Your task to perform on an android device: Open the stopwatch Image 0: 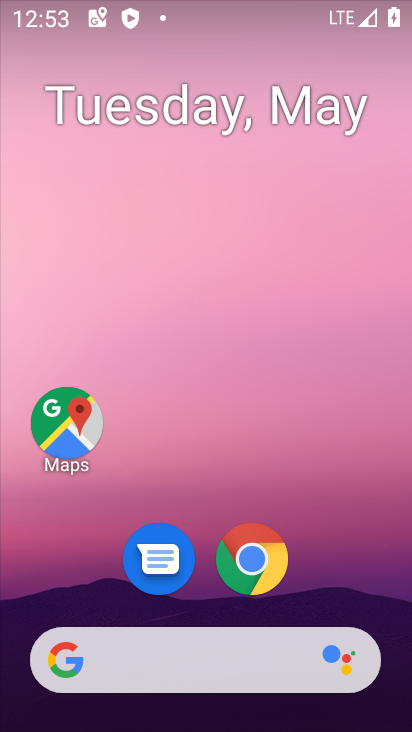
Step 0: drag from (322, 509) to (245, 107)
Your task to perform on an android device: Open the stopwatch Image 1: 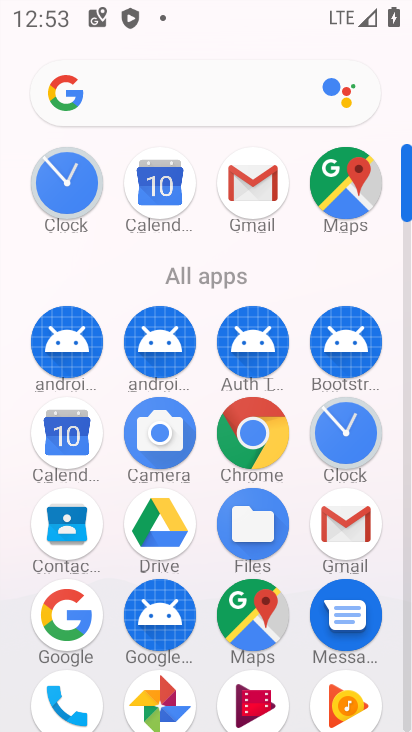
Step 1: click (352, 447)
Your task to perform on an android device: Open the stopwatch Image 2: 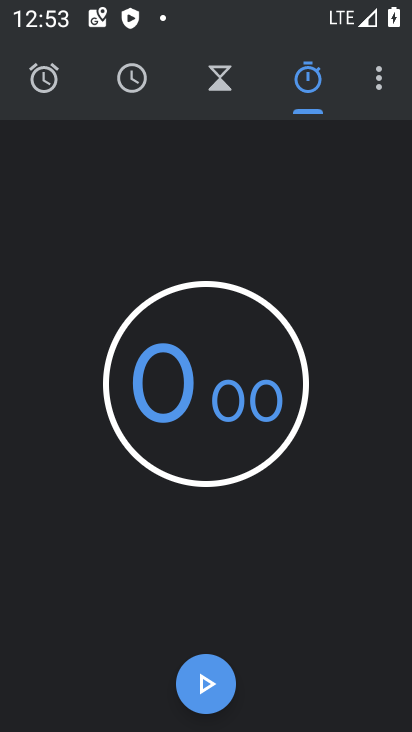
Step 2: task complete